Your task to perform on an android device: Open Chrome and go to the settings page Image 0: 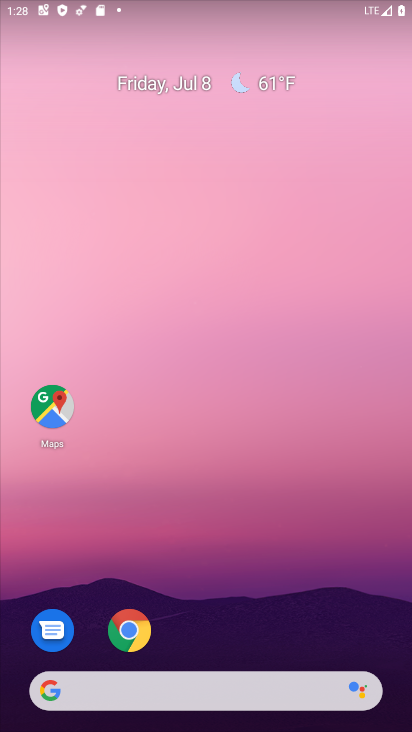
Step 0: drag from (386, 633) to (297, 155)
Your task to perform on an android device: Open Chrome and go to the settings page Image 1: 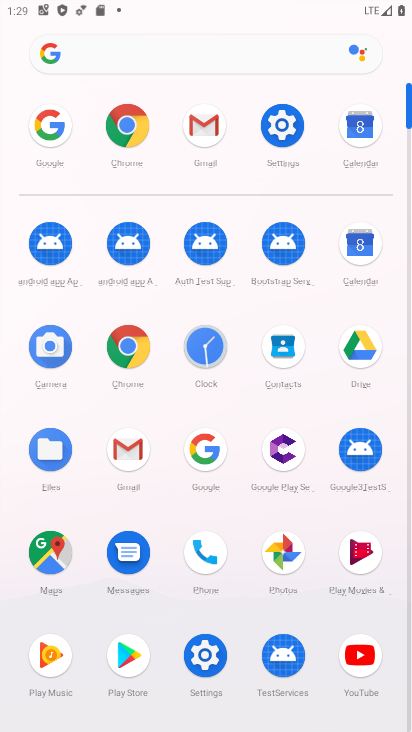
Step 1: click (134, 344)
Your task to perform on an android device: Open Chrome and go to the settings page Image 2: 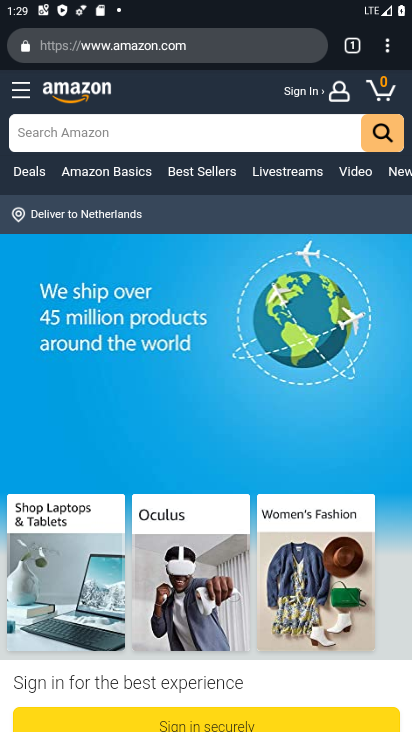
Step 2: press back button
Your task to perform on an android device: Open Chrome and go to the settings page Image 3: 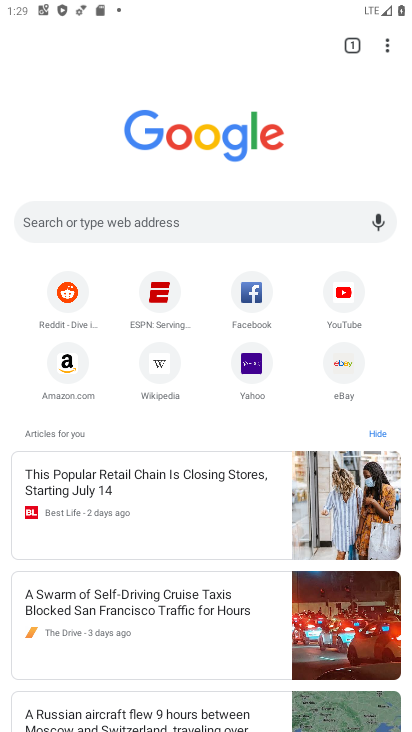
Step 3: click (387, 47)
Your task to perform on an android device: Open Chrome and go to the settings page Image 4: 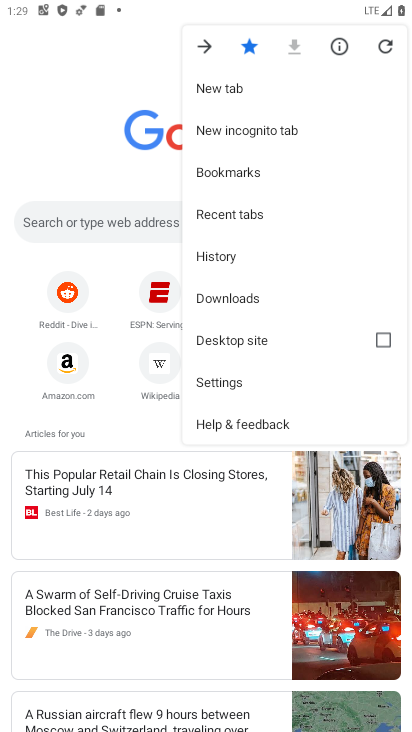
Step 4: click (216, 397)
Your task to perform on an android device: Open Chrome and go to the settings page Image 5: 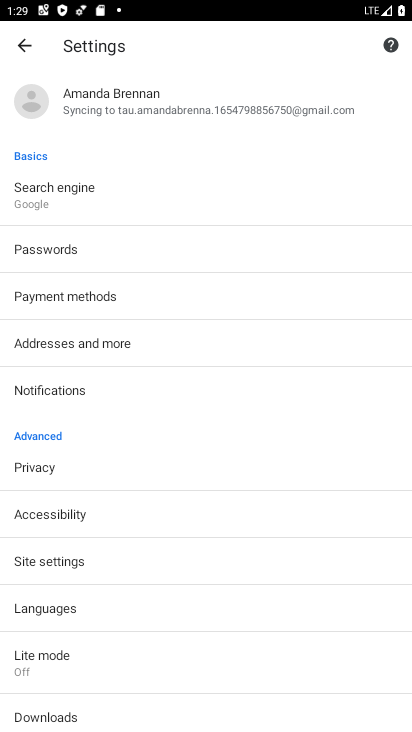
Step 5: task complete